Your task to perform on an android device: Open Chrome and go to settings Image 0: 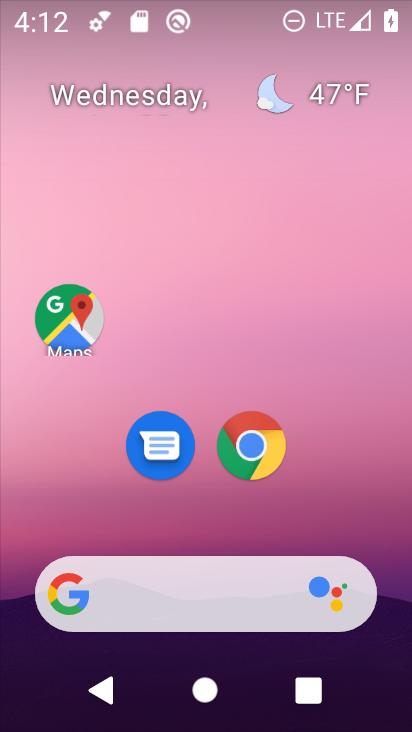
Step 0: click (254, 440)
Your task to perform on an android device: Open Chrome and go to settings Image 1: 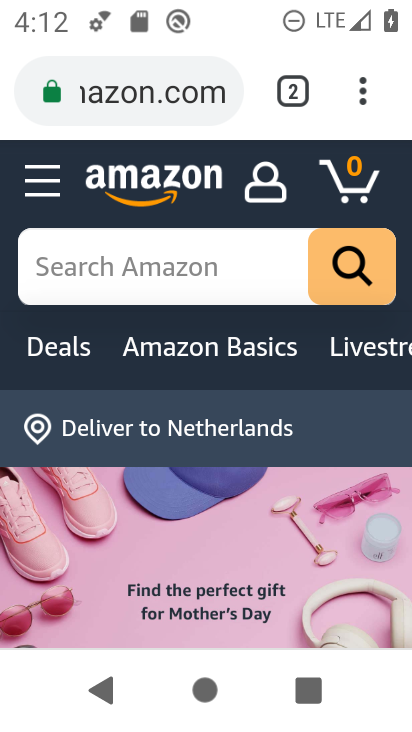
Step 1: click (366, 95)
Your task to perform on an android device: Open Chrome and go to settings Image 2: 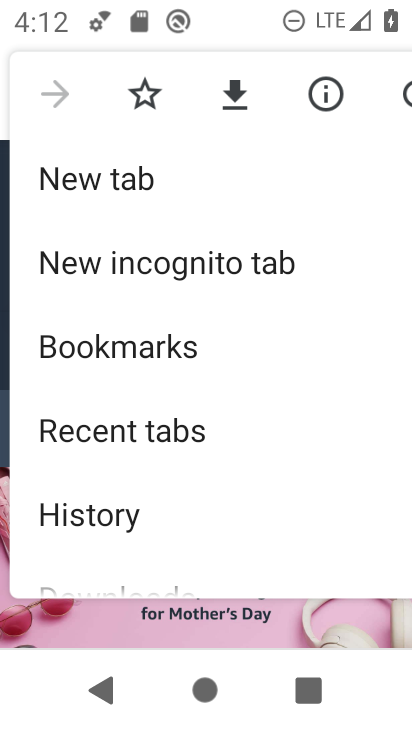
Step 2: drag from (158, 497) to (215, 397)
Your task to perform on an android device: Open Chrome and go to settings Image 3: 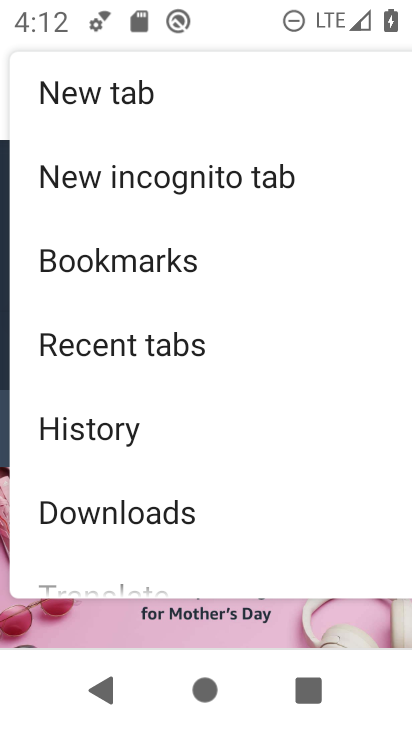
Step 3: drag from (203, 484) to (223, 417)
Your task to perform on an android device: Open Chrome and go to settings Image 4: 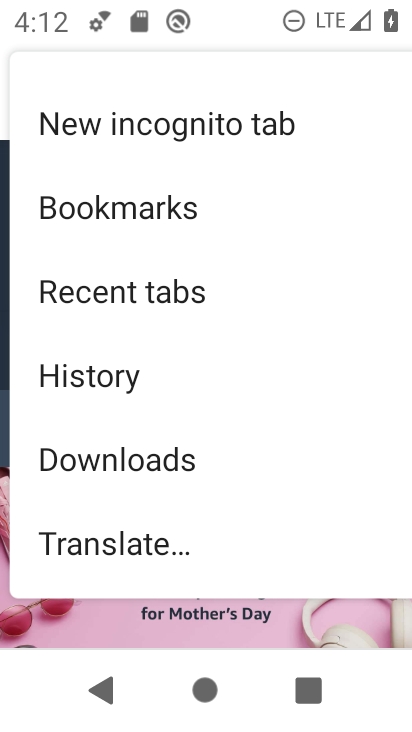
Step 4: drag from (205, 501) to (224, 421)
Your task to perform on an android device: Open Chrome and go to settings Image 5: 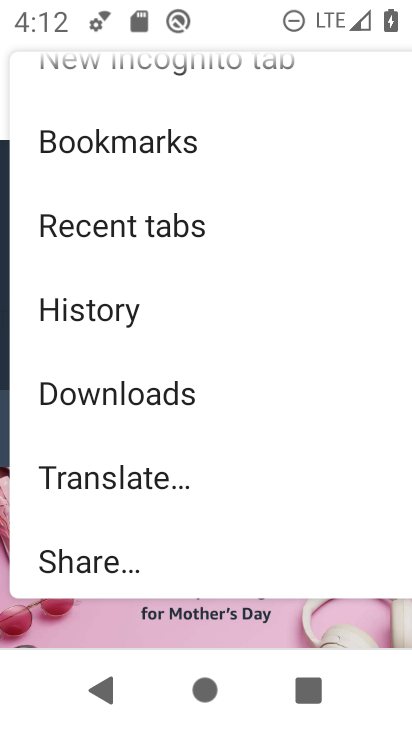
Step 5: drag from (193, 511) to (210, 411)
Your task to perform on an android device: Open Chrome and go to settings Image 6: 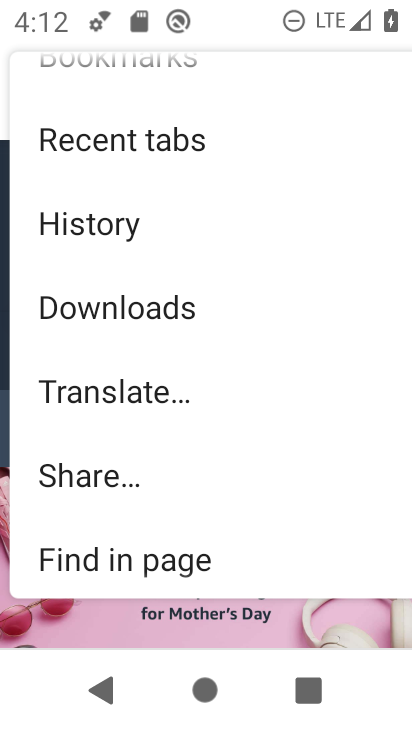
Step 6: drag from (182, 541) to (242, 375)
Your task to perform on an android device: Open Chrome and go to settings Image 7: 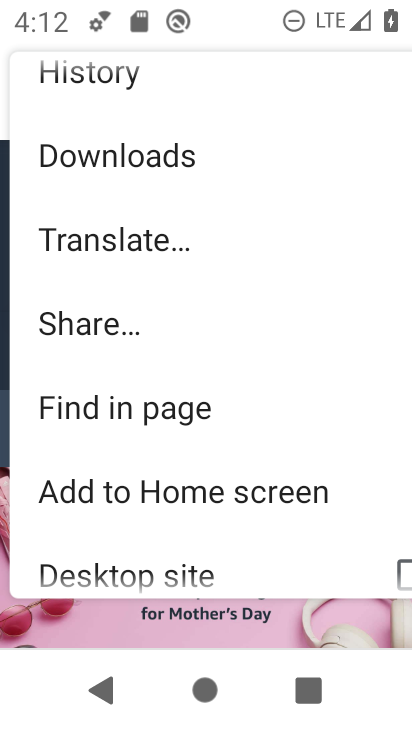
Step 7: drag from (230, 533) to (284, 307)
Your task to perform on an android device: Open Chrome and go to settings Image 8: 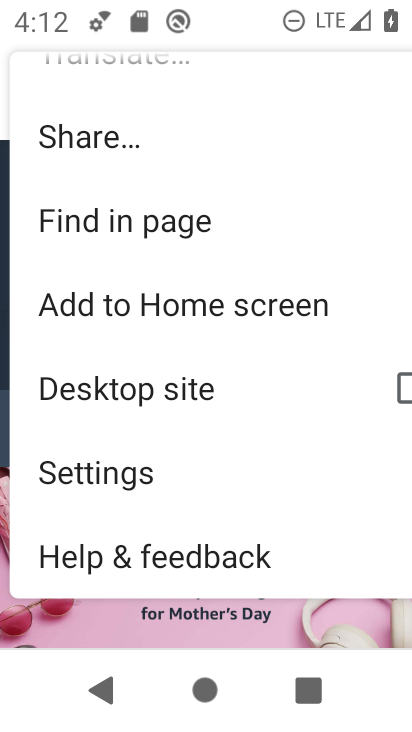
Step 8: click (128, 476)
Your task to perform on an android device: Open Chrome and go to settings Image 9: 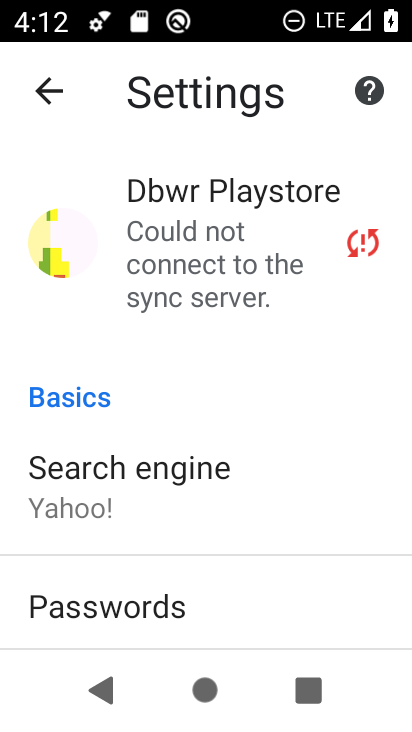
Step 9: task complete